Your task to perform on an android device: Add "logitech g pro" to the cart on ebay Image 0: 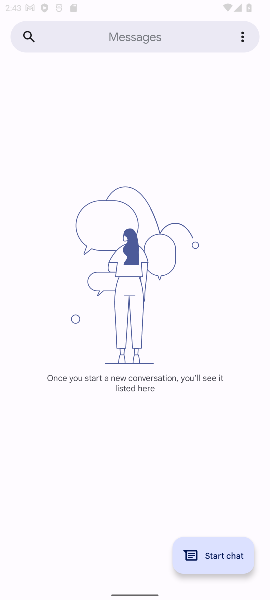
Step 0: press home button
Your task to perform on an android device: Add "logitech g pro" to the cart on ebay Image 1: 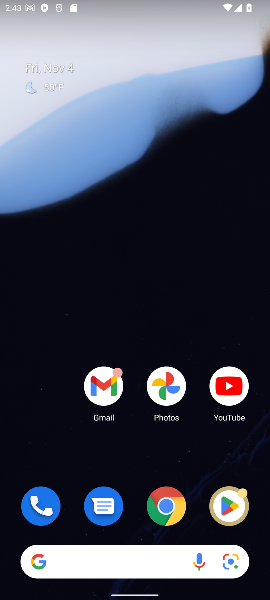
Step 1: drag from (135, 472) to (165, 105)
Your task to perform on an android device: Add "logitech g pro" to the cart on ebay Image 2: 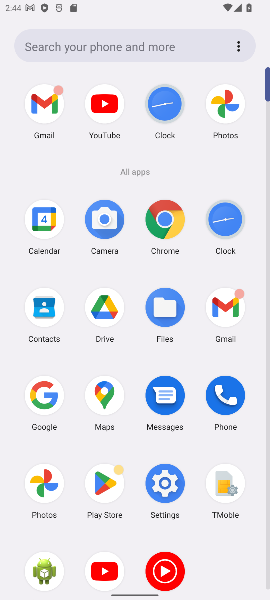
Step 2: click (167, 222)
Your task to perform on an android device: Add "logitech g pro" to the cart on ebay Image 3: 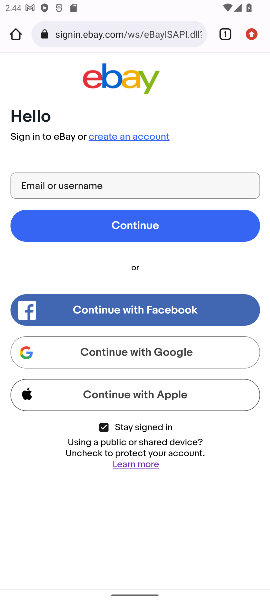
Step 3: click (130, 36)
Your task to perform on an android device: Add "logitech g pro" to the cart on ebay Image 4: 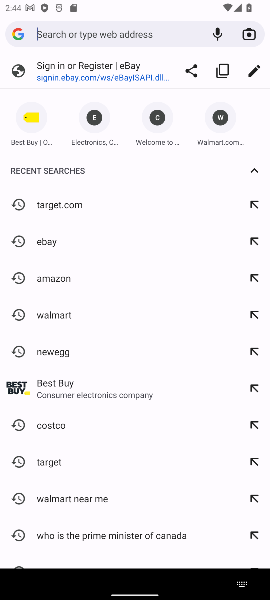
Step 4: type "ebay.com"
Your task to perform on an android device: Add "logitech g pro" to the cart on ebay Image 5: 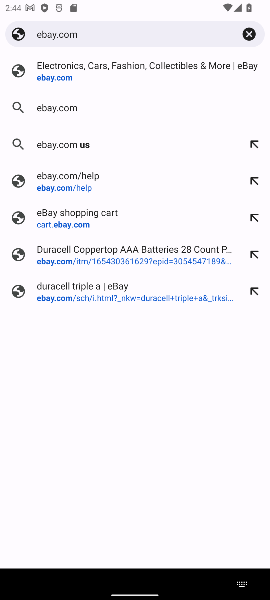
Step 5: press enter
Your task to perform on an android device: Add "logitech g pro" to the cart on ebay Image 6: 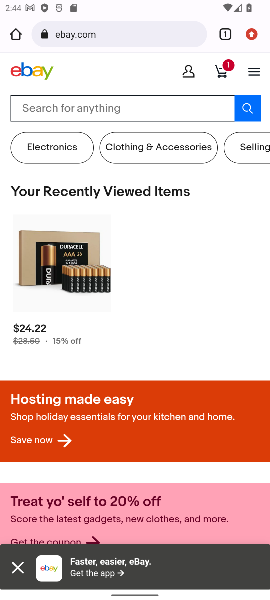
Step 6: click (125, 109)
Your task to perform on an android device: Add "logitech g pro" to the cart on ebay Image 7: 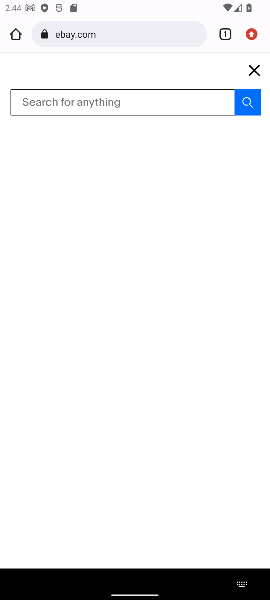
Step 7: type "logitech g pro"
Your task to perform on an android device: Add "logitech g pro" to the cart on ebay Image 8: 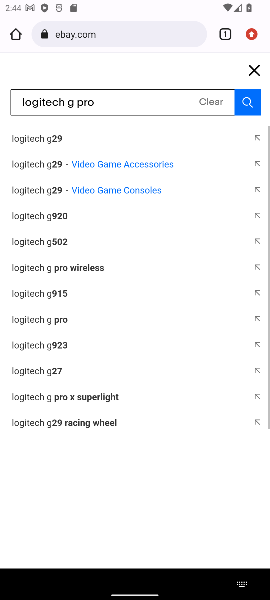
Step 8: press enter
Your task to perform on an android device: Add "logitech g pro" to the cart on ebay Image 9: 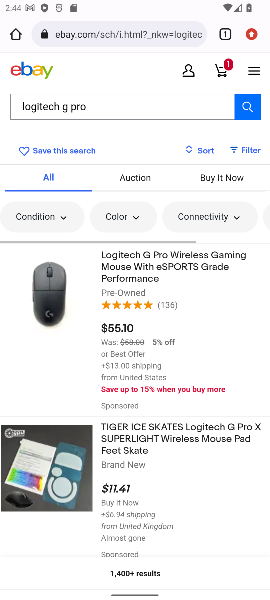
Step 9: click (66, 292)
Your task to perform on an android device: Add "logitech g pro" to the cart on ebay Image 10: 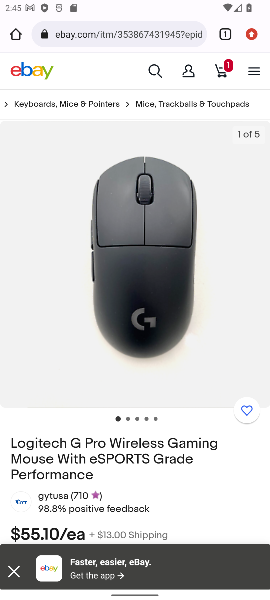
Step 10: drag from (192, 487) to (204, 68)
Your task to perform on an android device: Add "logitech g pro" to the cart on ebay Image 11: 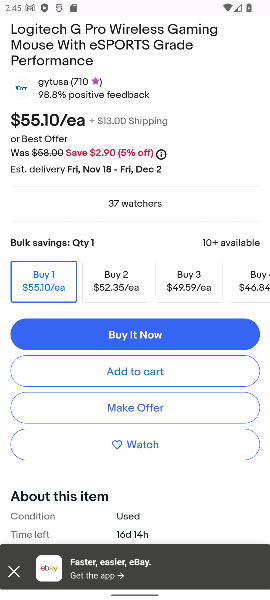
Step 11: click (146, 369)
Your task to perform on an android device: Add "logitech g pro" to the cart on ebay Image 12: 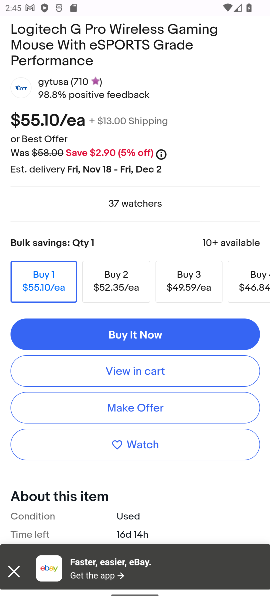
Step 12: task complete